Your task to perform on an android device: turn off smart reply in the gmail app Image 0: 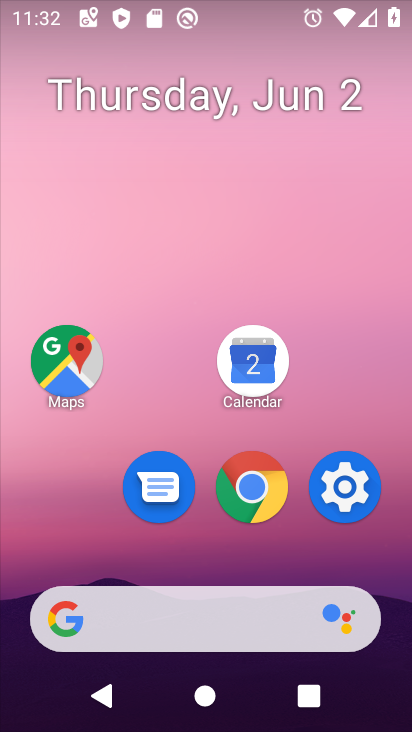
Step 0: press home button
Your task to perform on an android device: turn off smart reply in the gmail app Image 1: 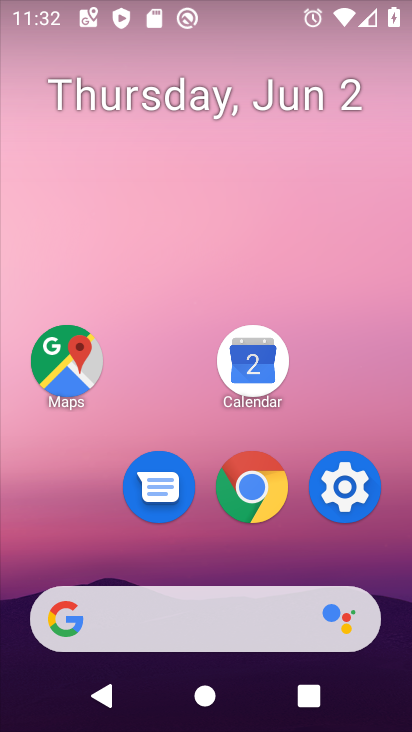
Step 1: drag from (182, 660) to (187, 236)
Your task to perform on an android device: turn off smart reply in the gmail app Image 2: 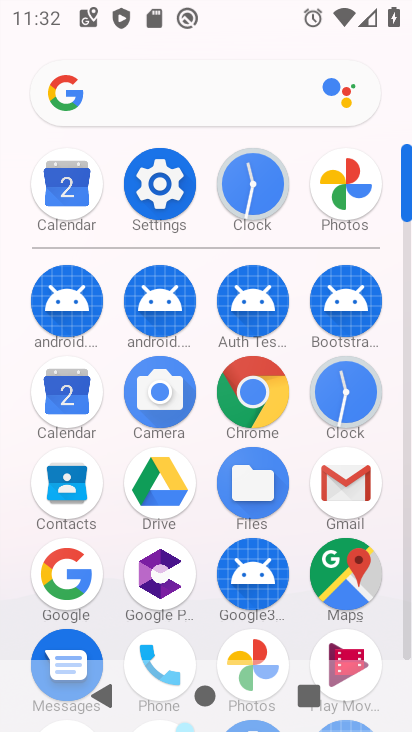
Step 2: click (346, 479)
Your task to perform on an android device: turn off smart reply in the gmail app Image 3: 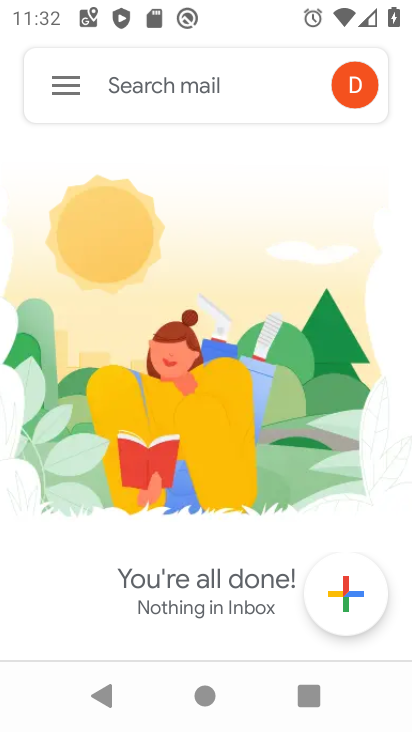
Step 3: click (62, 102)
Your task to perform on an android device: turn off smart reply in the gmail app Image 4: 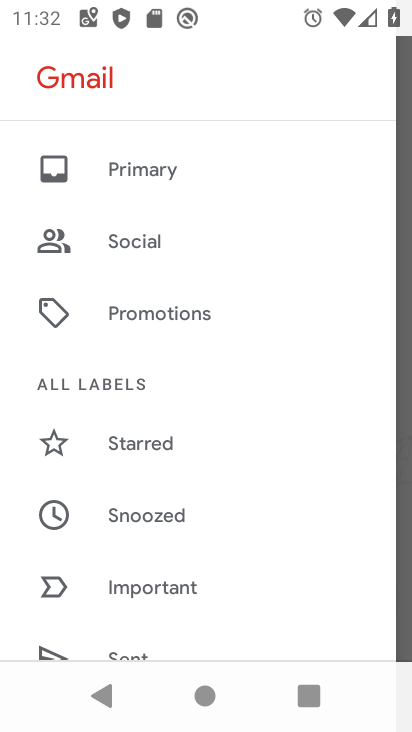
Step 4: drag from (131, 622) to (205, 295)
Your task to perform on an android device: turn off smart reply in the gmail app Image 5: 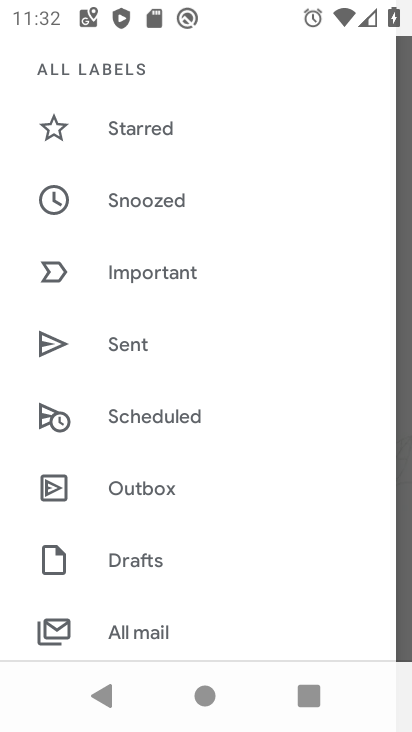
Step 5: drag from (126, 527) to (185, 433)
Your task to perform on an android device: turn off smart reply in the gmail app Image 6: 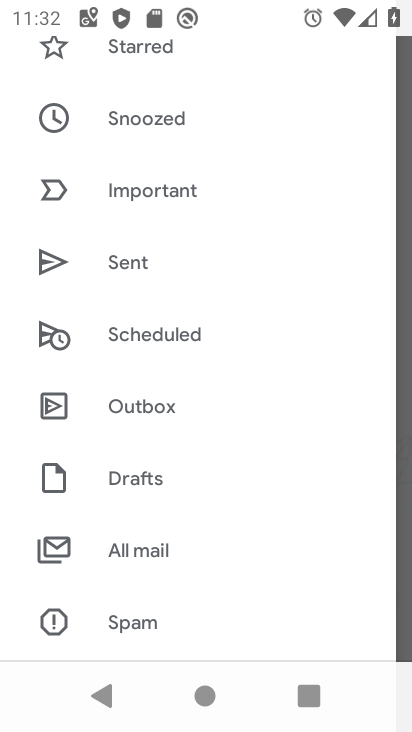
Step 6: click (230, 440)
Your task to perform on an android device: turn off smart reply in the gmail app Image 7: 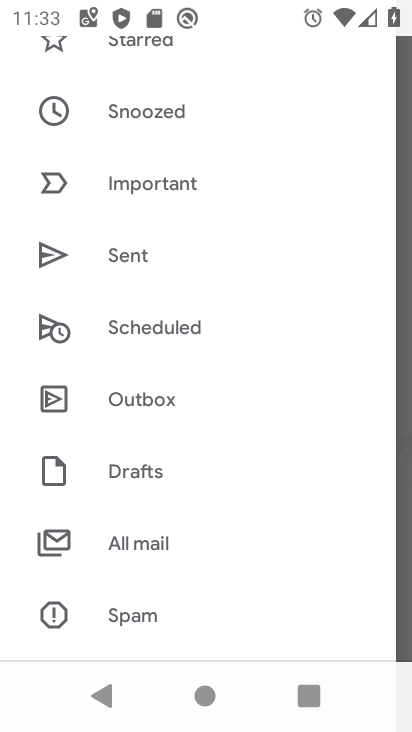
Step 7: drag from (124, 610) to (173, 492)
Your task to perform on an android device: turn off smart reply in the gmail app Image 8: 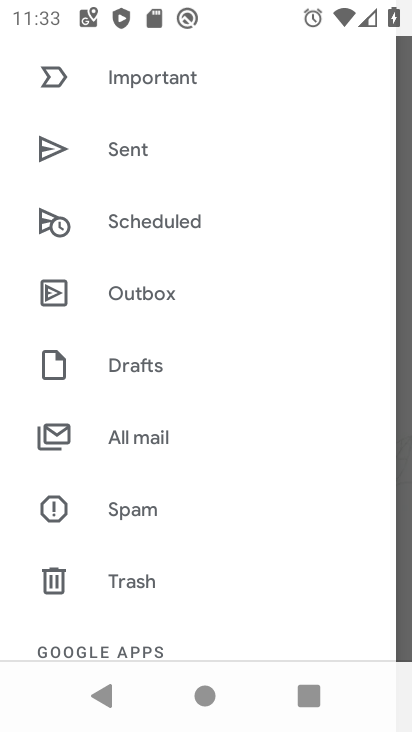
Step 8: drag from (128, 575) to (155, 492)
Your task to perform on an android device: turn off smart reply in the gmail app Image 9: 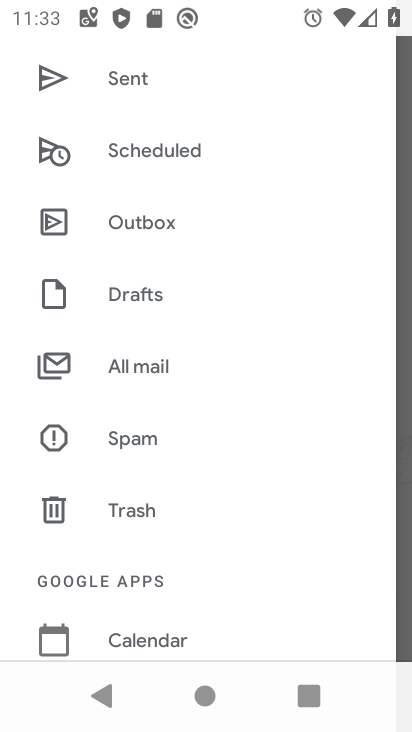
Step 9: drag from (136, 571) to (184, 459)
Your task to perform on an android device: turn off smart reply in the gmail app Image 10: 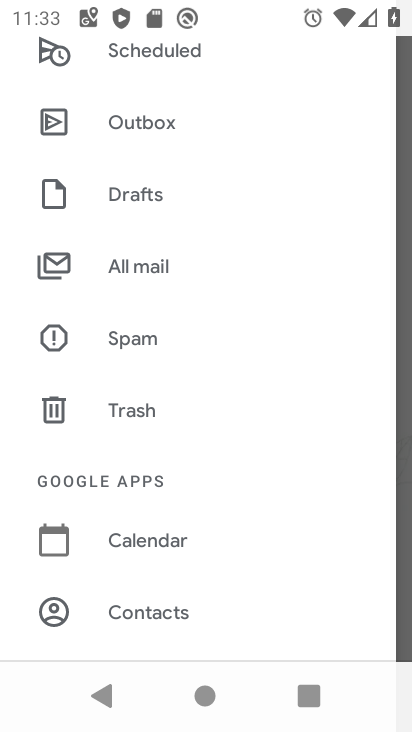
Step 10: drag from (169, 462) to (179, 391)
Your task to perform on an android device: turn off smart reply in the gmail app Image 11: 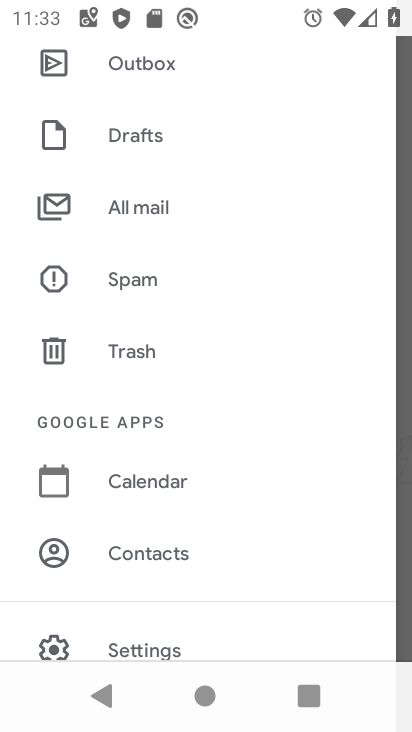
Step 11: click (130, 635)
Your task to perform on an android device: turn off smart reply in the gmail app Image 12: 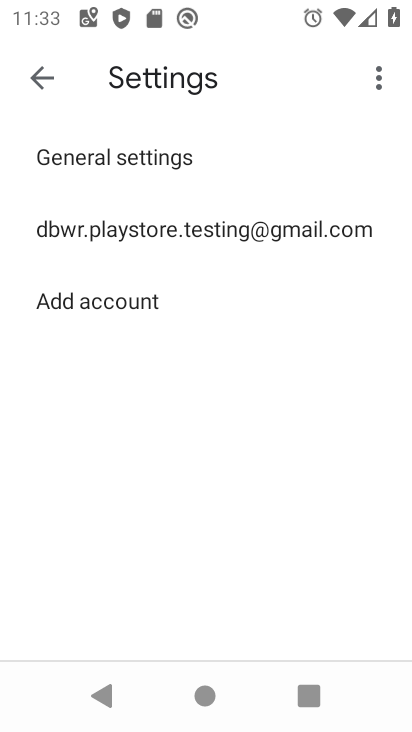
Step 12: click (182, 229)
Your task to perform on an android device: turn off smart reply in the gmail app Image 13: 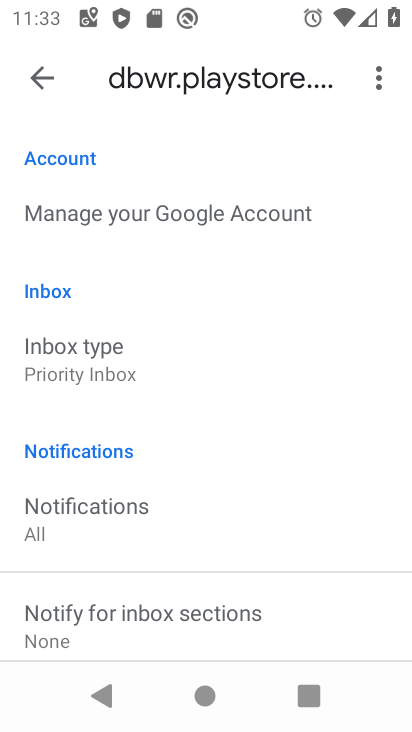
Step 13: drag from (182, 632) to (240, 253)
Your task to perform on an android device: turn off smart reply in the gmail app Image 14: 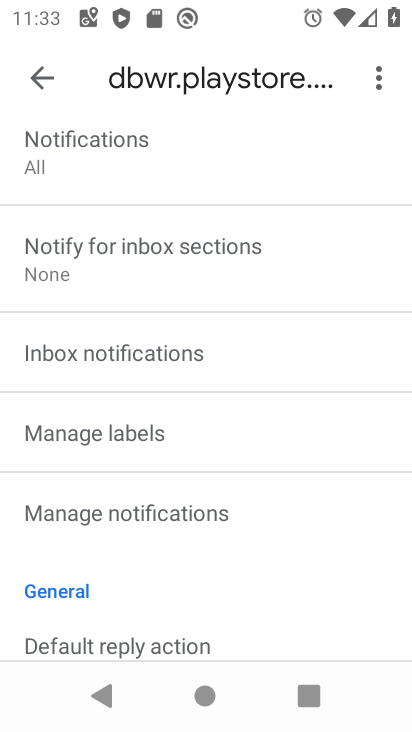
Step 14: drag from (156, 510) to (195, 179)
Your task to perform on an android device: turn off smart reply in the gmail app Image 15: 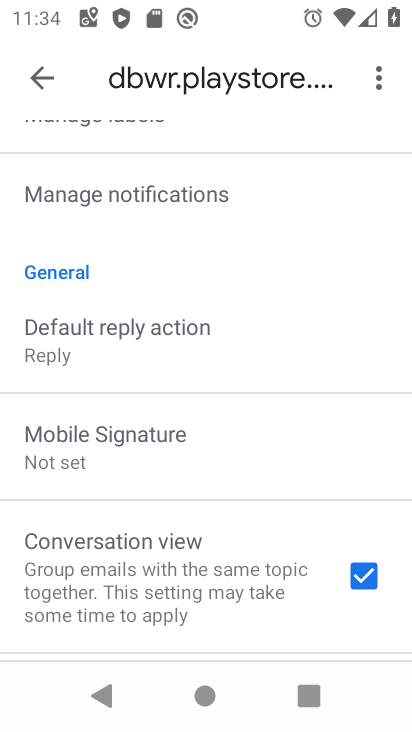
Step 15: drag from (151, 518) to (202, 248)
Your task to perform on an android device: turn off smart reply in the gmail app Image 16: 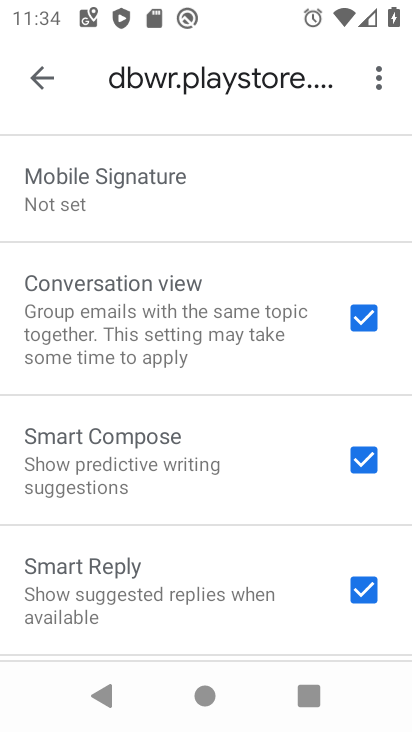
Step 16: click (355, 587)
Your task to perform on an android device: turn off smart reply in the gmail app Image 17: 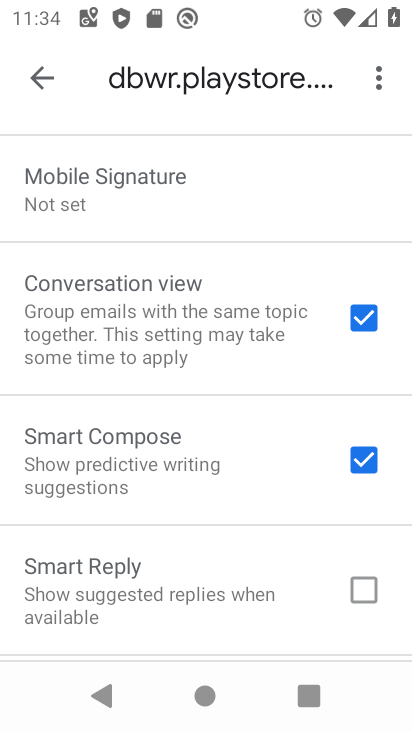
Step 17: task complete